Your task to perform on an android device: Open privacy settings Image 0: 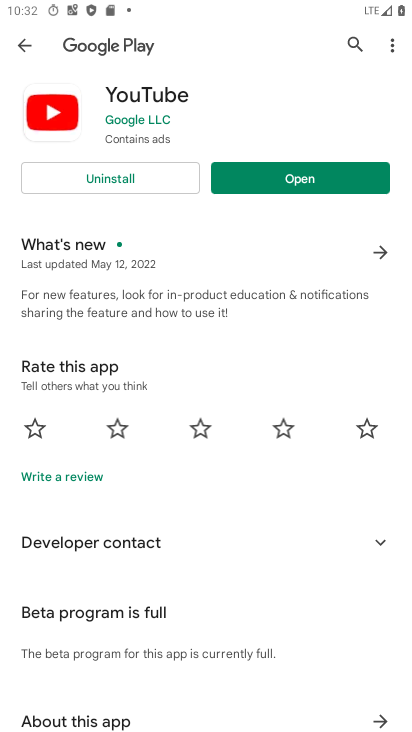
Step 0: press home button
Your task to perform on an android device: Open privacy settings Image 1: 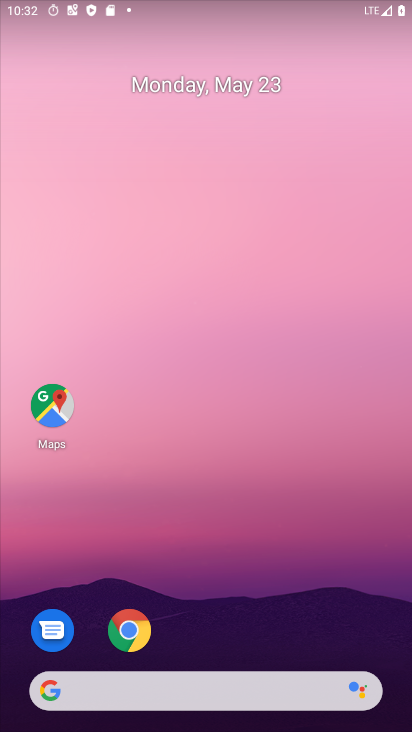
Step 1: drag from (232, 650) to (279, 26)
Your task to perform on an android device: Open privacy settings Image 2: 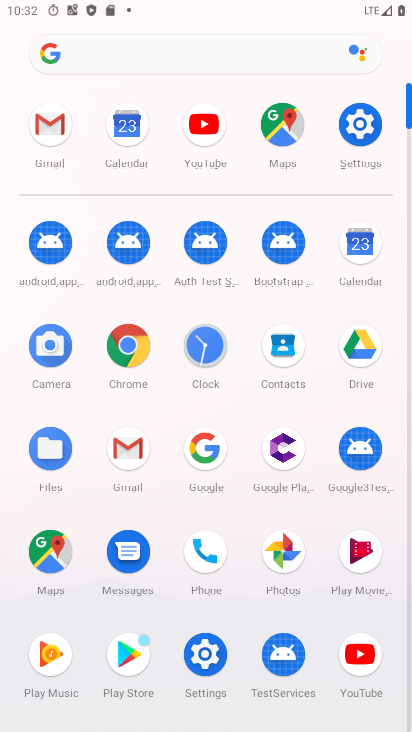
Step 2: click (353, 132)
Your task to perform on an android device: Open privacy settings Image 3: 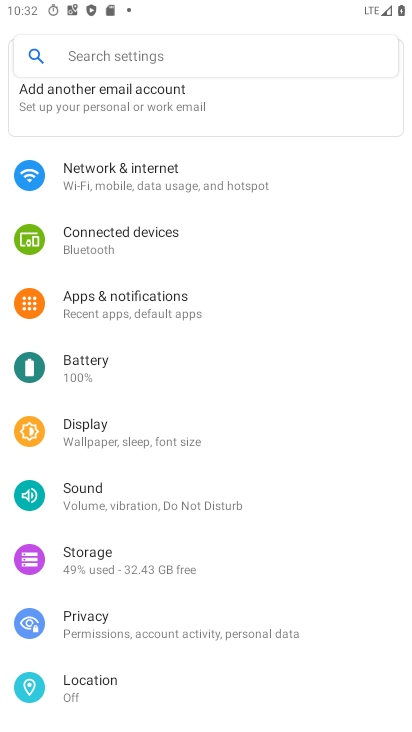
Step 3: click (75, 616)
Your task to perform on an android device: Open privacy settings Image 4: 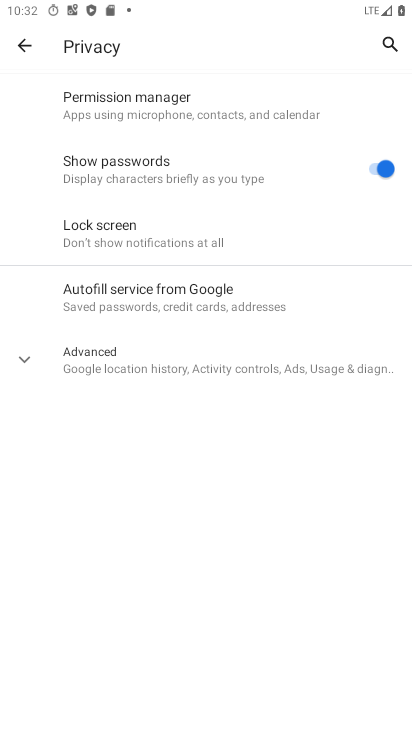
Step 4: task complete